Your task to perform on an android device: change your default location settings in chrome Image 0: 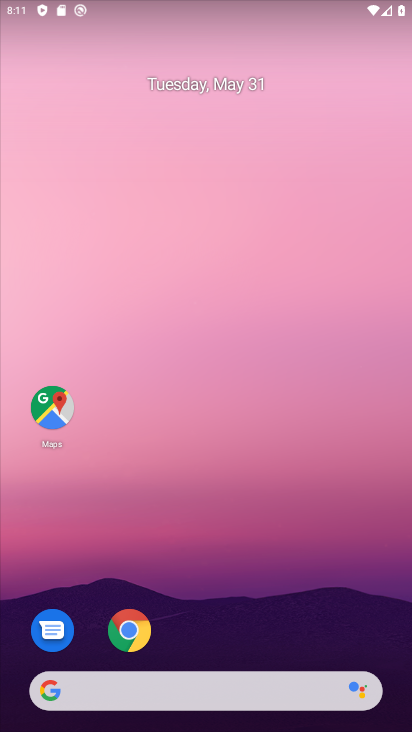
Step 0: drag from (322, 656) to (342, 39)
Your task to perform on an android device: change your default location settings in chrome Image 1: 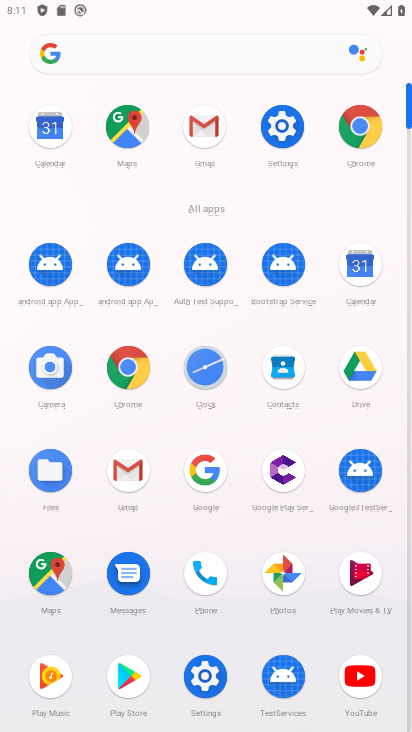
Step 1: click (374, 136)
Your task to perform on an android device: change your default location settings in chrome Image 2: 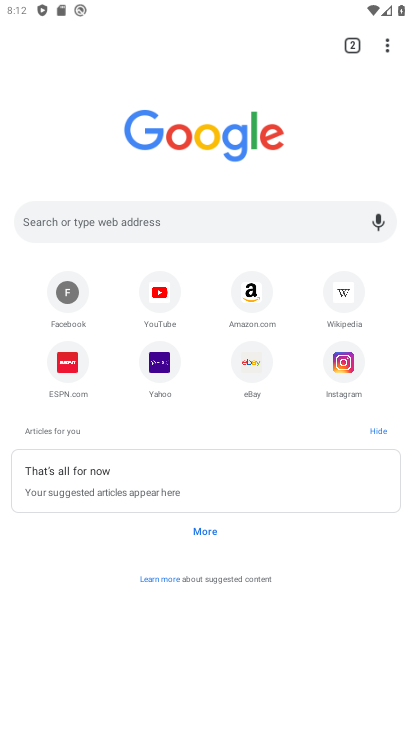
Step 2: drag from (382, 49) to (245, 391)
Your task to perform on an android device: change your default location settings in chrome Image 3: 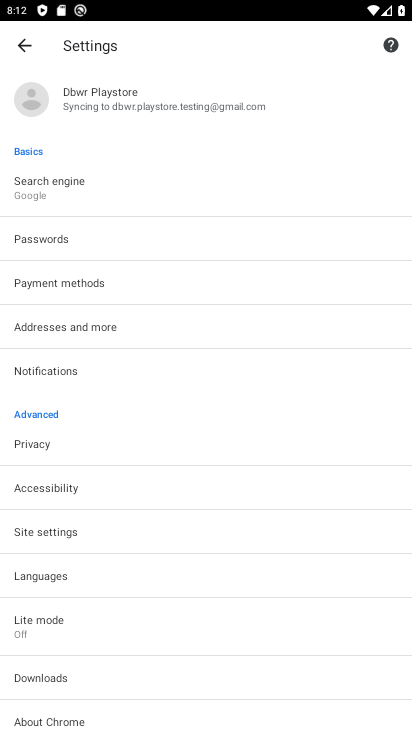
Step 3: click (51, 530)
Your task to perform on an android device: change your default location settings in chrome Image 4: 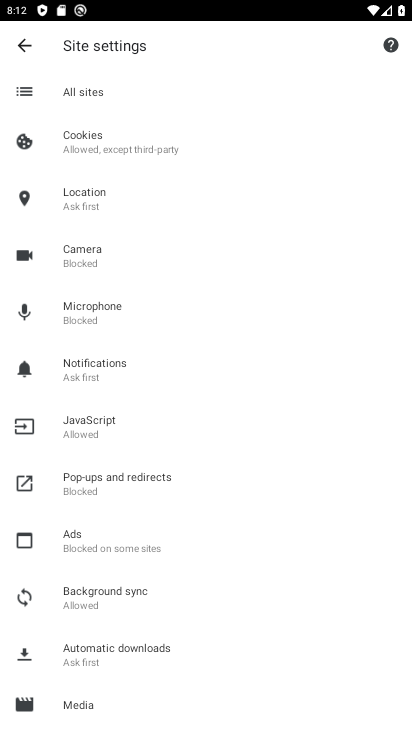
Step 4: click (121, 210)
Your task to perform on an android device: change your default location settings in chrome Image 5: 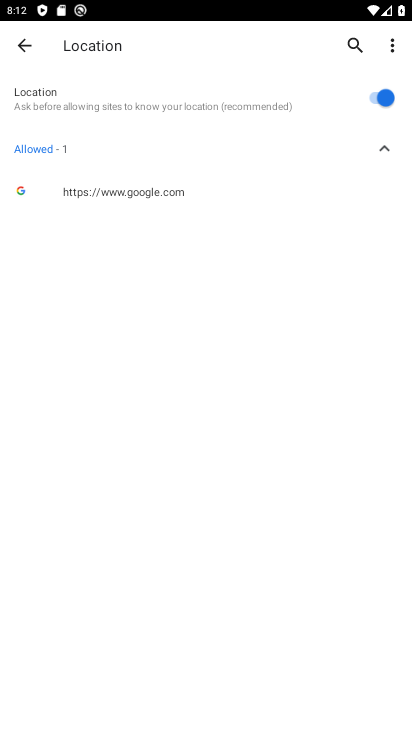
Step 5: click (384, 147)
Your task to perform on an android device: change your default location settings in chrome Image 6: 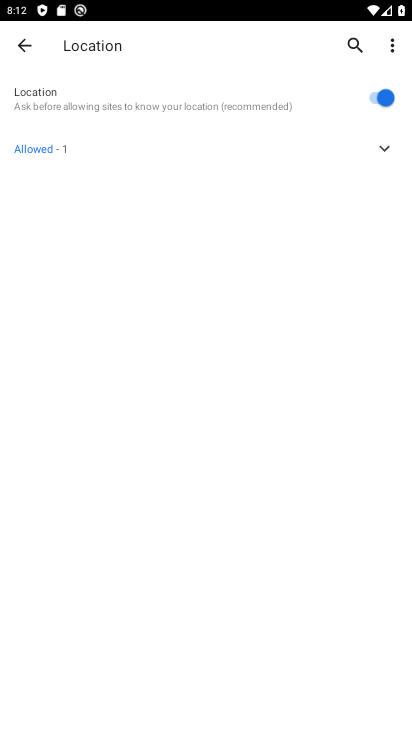
Step 6: click (384, 148)
Your task to perform on an android device: change your default location settings in chrome Image 7: 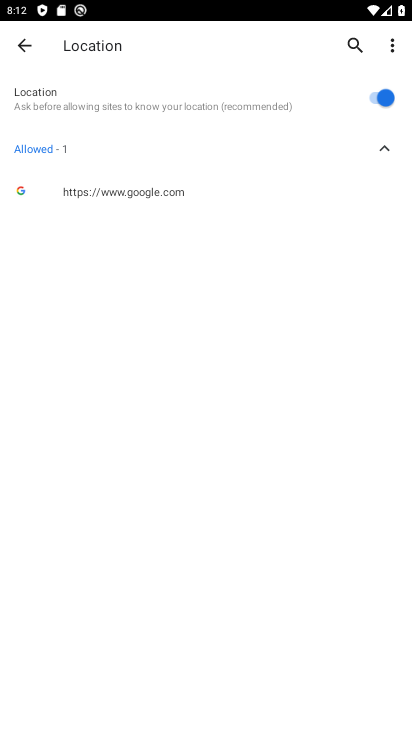
Step 7: click (373, 98)
Your task to perform on an android device: change your default location settings in chrome Image 8: 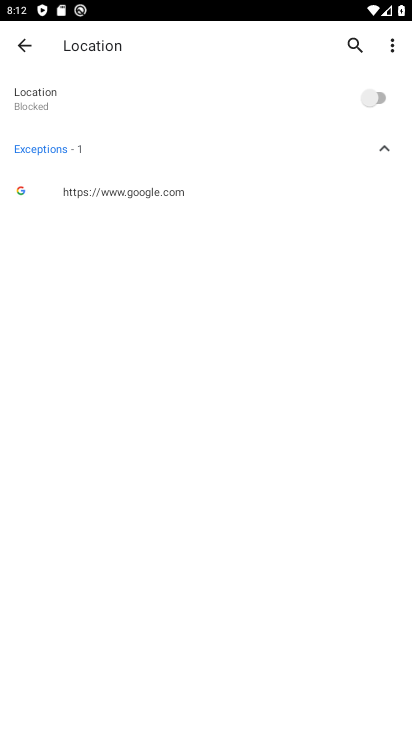
Step 8: task complete